Your task to perform on an android device: Go to sound settings Image 0: 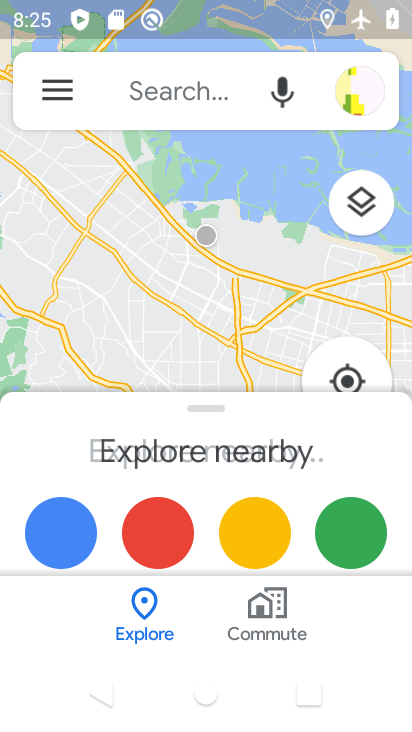
Step 0: press home button
Your task to perform on an android device: Go to sound settings Image 1: 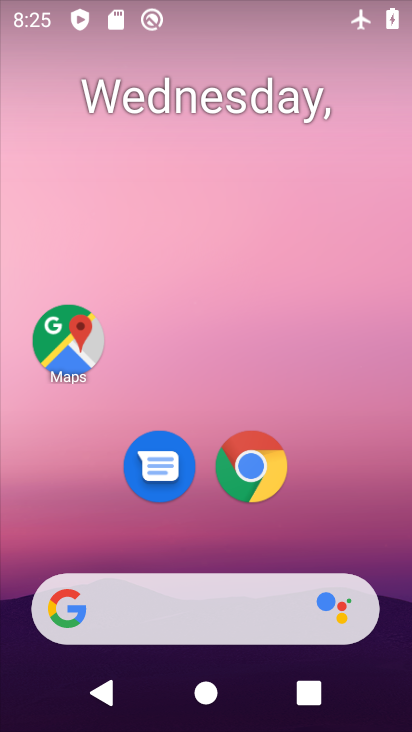
Step 1: drag from (304, 531) to (407, 16)
Your task to perform on an android device: Go to sound settings Image 2: 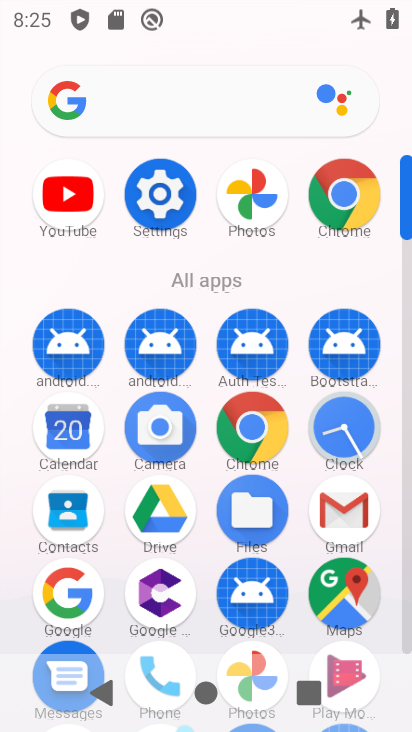
Step 2: click (156, 197)
Your task to perform on an android device: Go to sound settings Image 3: 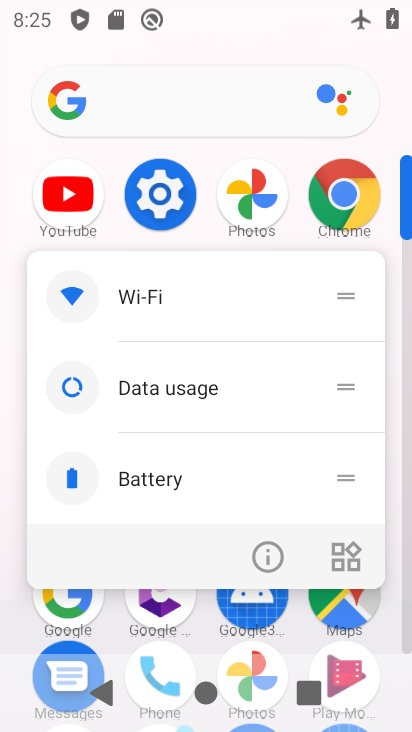
Step 3: click (156, 197)
Your task to perform on an android device: Go to sound settings Image 4: 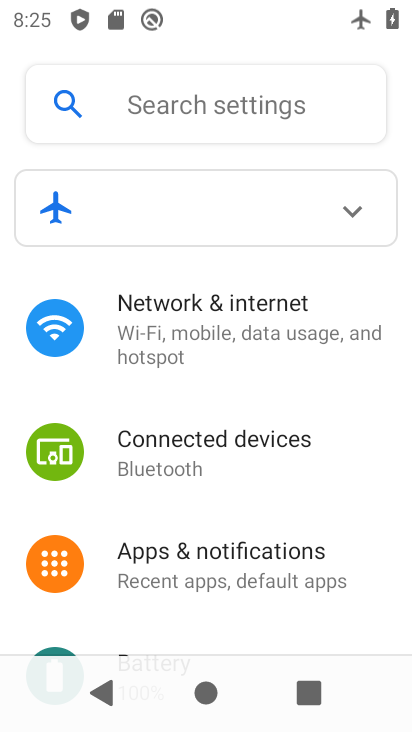
Step 4: drag from (168, 258) to (172, 176)
Your task to perform on an android device: Go to sound settings Image 5: 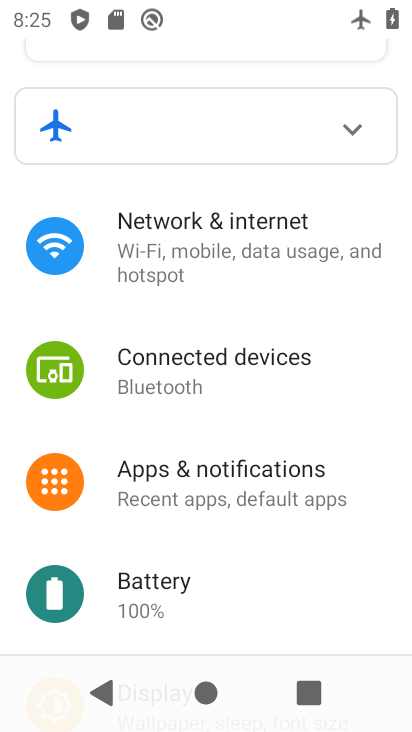
Step 5: drag from (193, 268) to (200, 197)
Your task to perform on an android device: Go to sound settings Image 6: 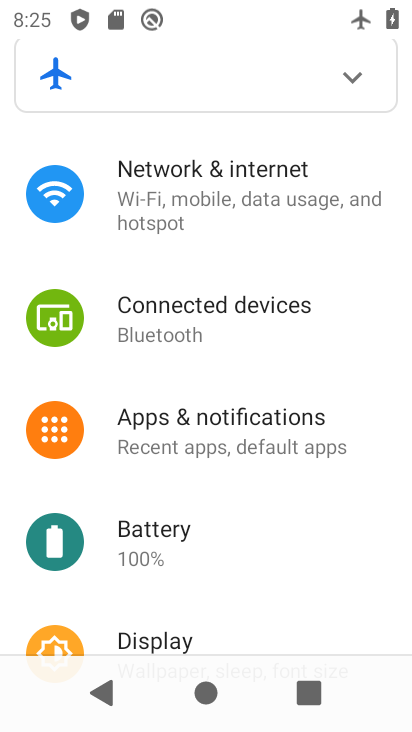
Step 6: drag from (220, 304) to (232, 208)
Your task to perform on an android device: Go to sound settings Image 7: 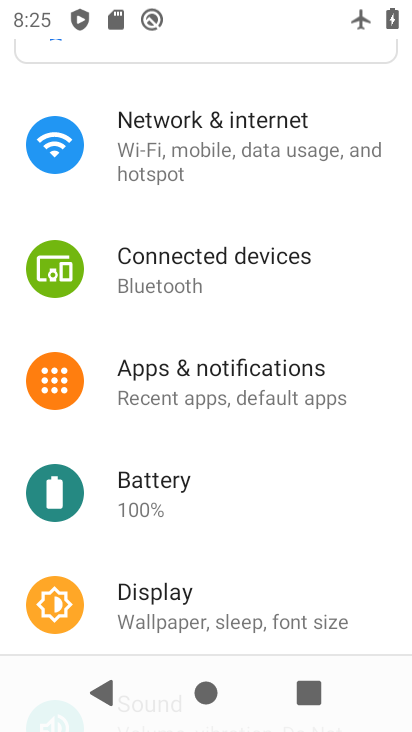
Step 7: drag from (188, 387) to (171, 266)
Your task to perform on an android device: Go to sound settings Image 8: 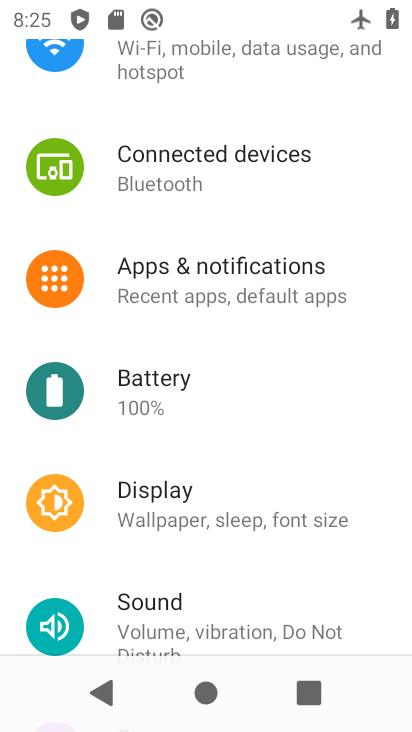
Step 8: drag from (196, 415) to (215, 325)
Your task to perform on an android device: Go to sound settings Image 9: 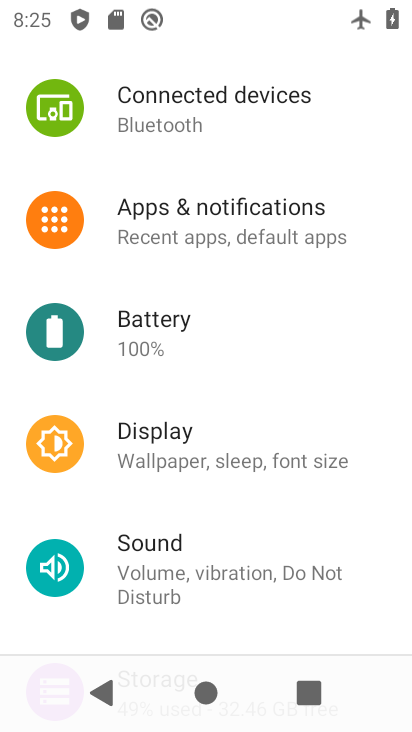
Step 9: click (191, 565)
Your task to perform on an android device: Go to sound settings Image 10: 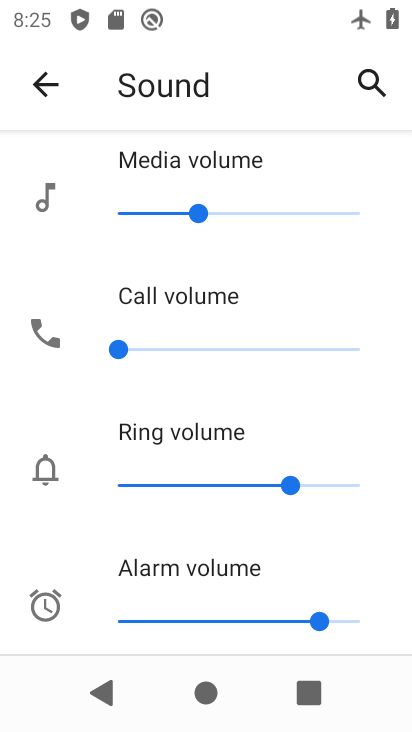
Step 10: task complete